Your task to perform on an android device: toggle notifications settings in the gmail app Image 0: 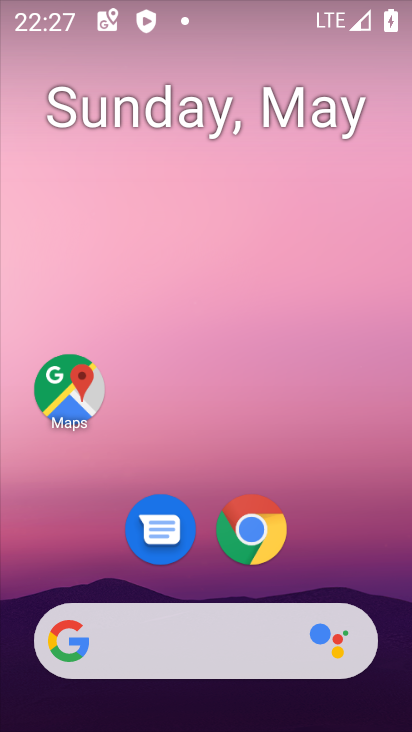
Step 0: drag from (359, 563) to (264, 104)
Your task to perform on an android device: toggle notifications settings in the gmail app Image 1: 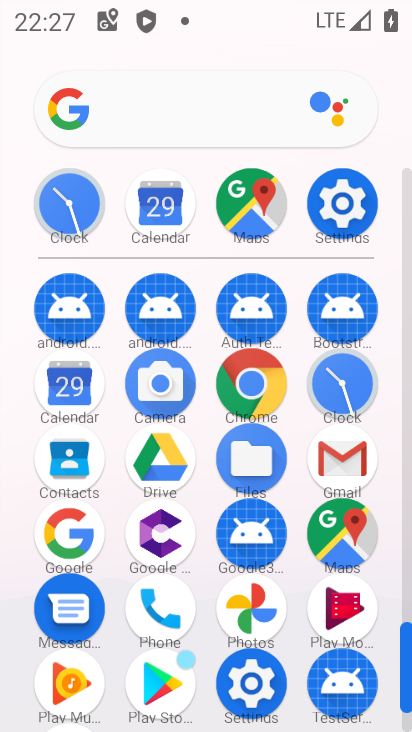
Step 1: click (358, 466)
Your task to perform on an android device: toggle notifications settings in the gmail app Image 2: 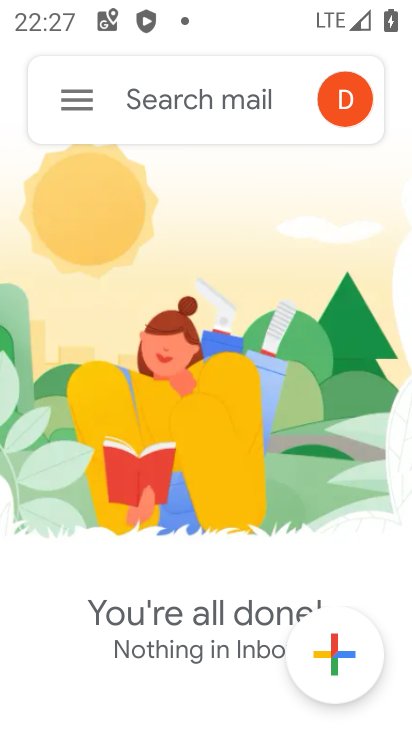
Step 2: task complete